Your task to perform on an android device: clear all cookies in the chrome app Image 0: 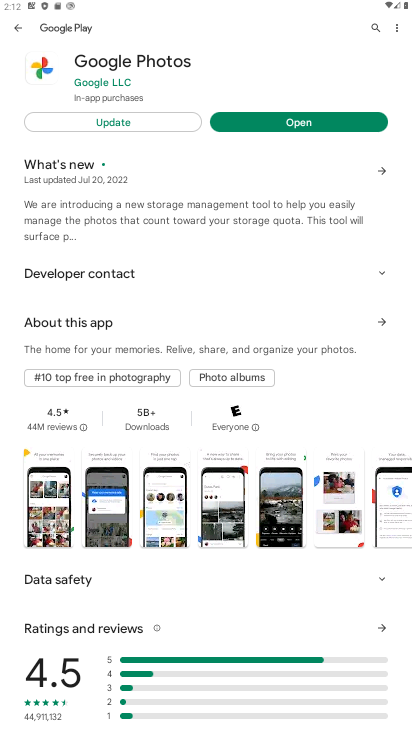
Step 0: click (408, 584)
Your task to perform on an android device: clear all cookies in the chrome app Image 1: 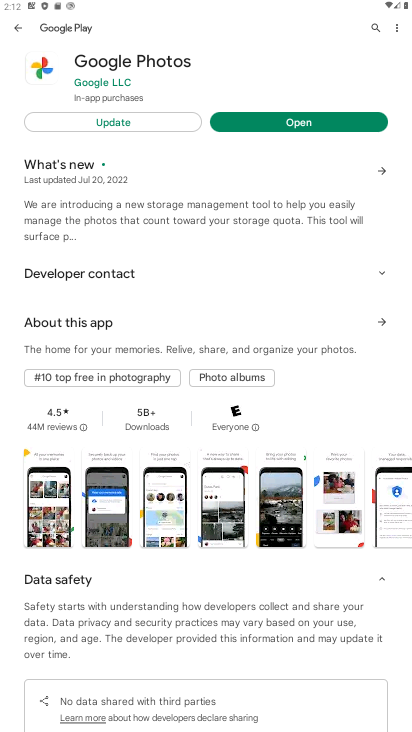
Step 1: drag from (195, 596) to (347, 709)
Your task to perform on an android device: clear all cookies in the chrome app Image 2: 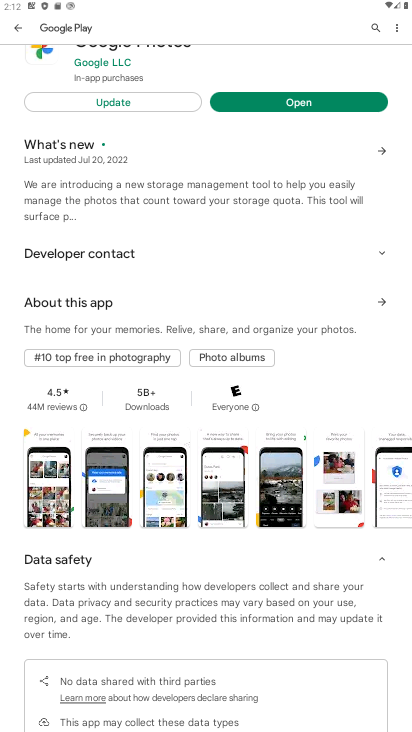
Step 2: press home button
Your task to perform on an android device: clear all cookies in the chrome app Image 3: 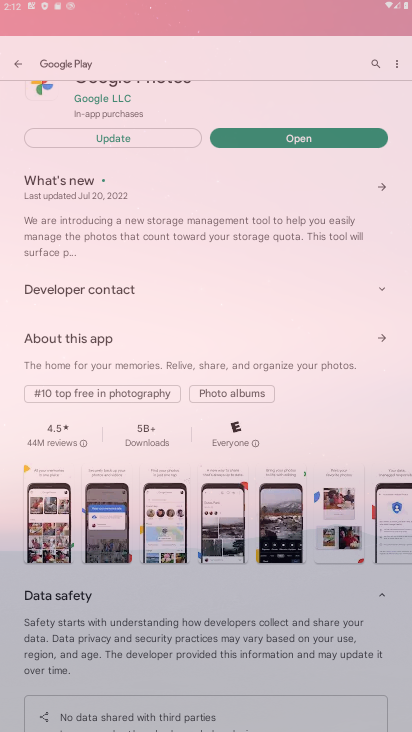
Step 3: drag from (173, 644) to (216, 133)
Your task to perform on an android device: clear all cookies in the chrome app Image 4: 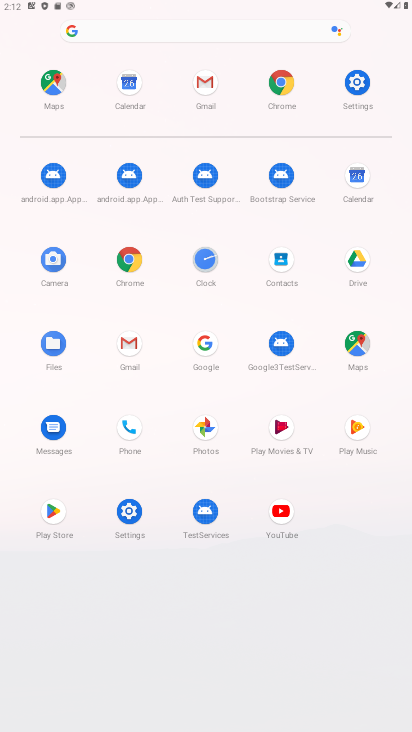
Step 4: click (131, 258)
Your task to perform on an android device: clear all cookies in the chrome app Image 5: 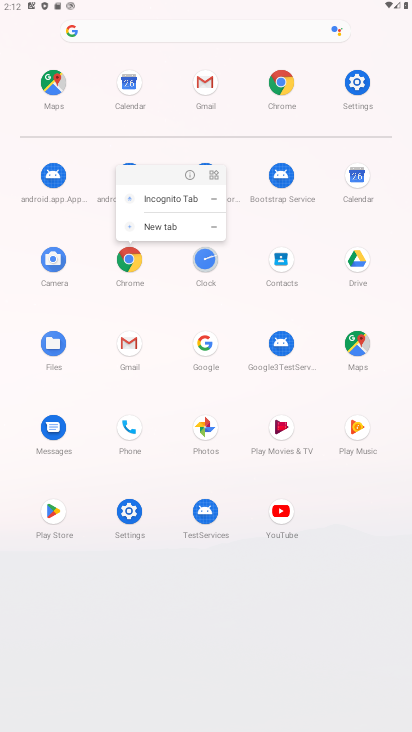
Step 5: click (188, 170)
Your task to perform on an android device: clear all cookies in the chrome app Image 6: 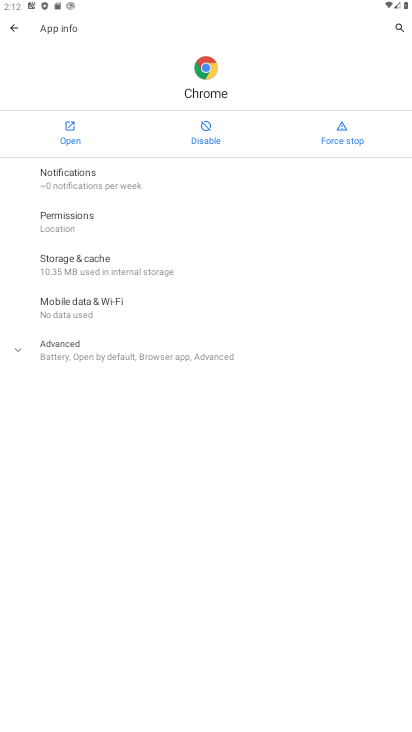
Step 6: click (64, 135)
Your task to perform on an android device: clear all cookies in the chrome app Image 7: 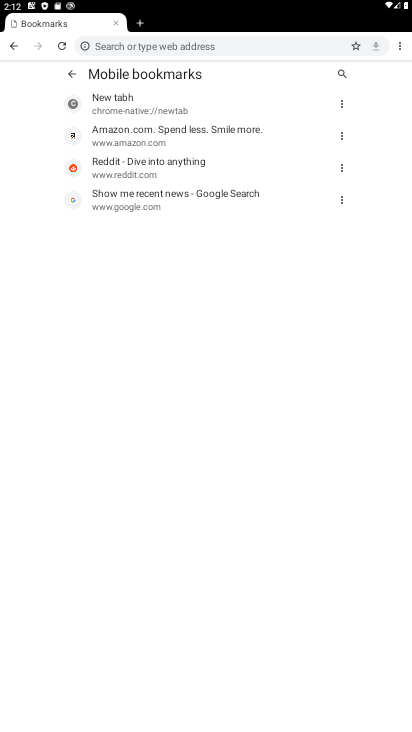
Step 7: drag from (394, 44) to (325, 137)
Your task to perform on an android device: clear all cookies in the chrome app Image 8: 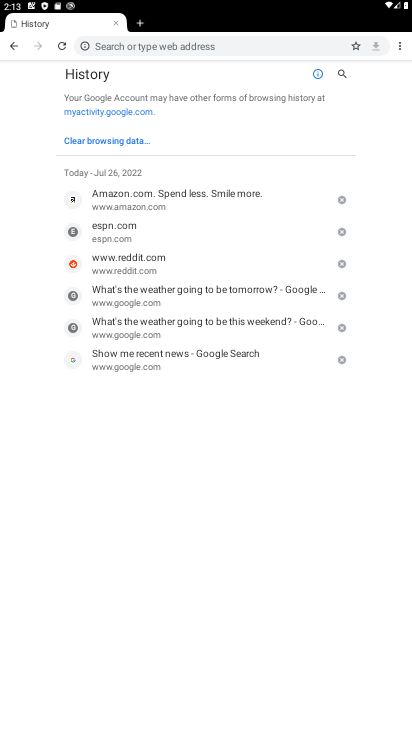
Step 8: drag from (204, 551) to (206, 298)
Your task to perform on an android device: clear all cookies in the chrome app Image 9: 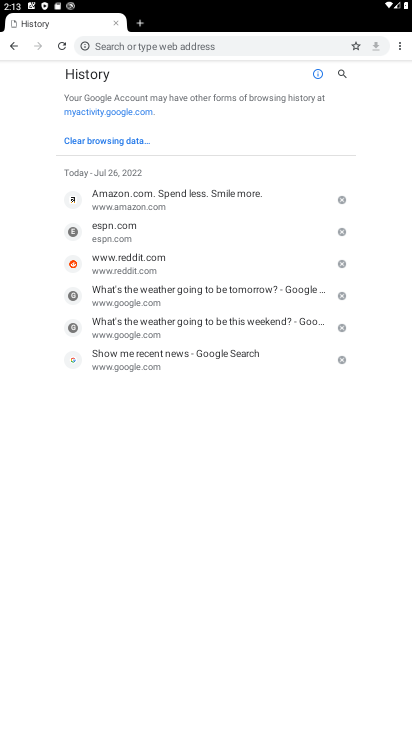
Step 9: click (95, 141)
Your task to perform on an android device: clear all cookies in the chrome app Image 10: 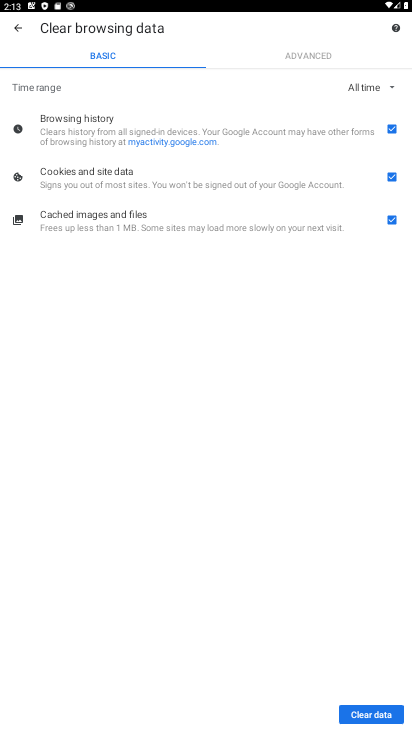
Step 10: drag from (231, 564) to (232, 213)
Your task to perform on an android device: clear all cookies in the chrome app Image 11: 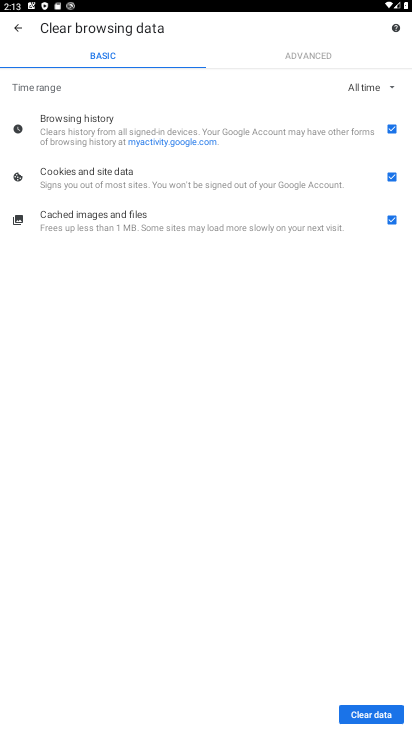
Step 11: click (390, 125)
Your task to perform on an android device: clear all cookies in the chrome app Image 12: 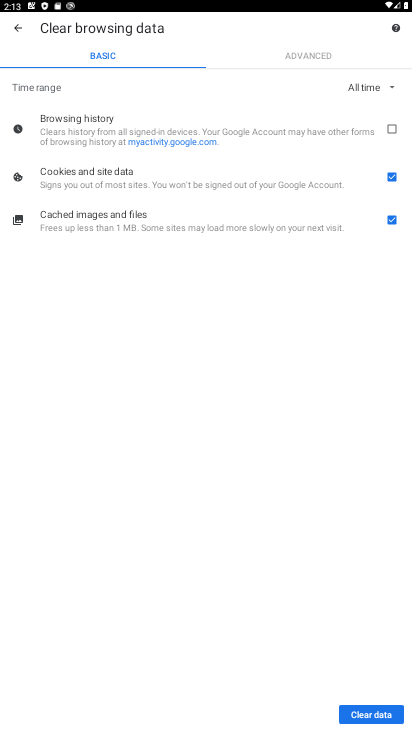
Step 12: click (385, 217)
Your task to perform on an android device: clear all cookies in the chrome app Image 13: 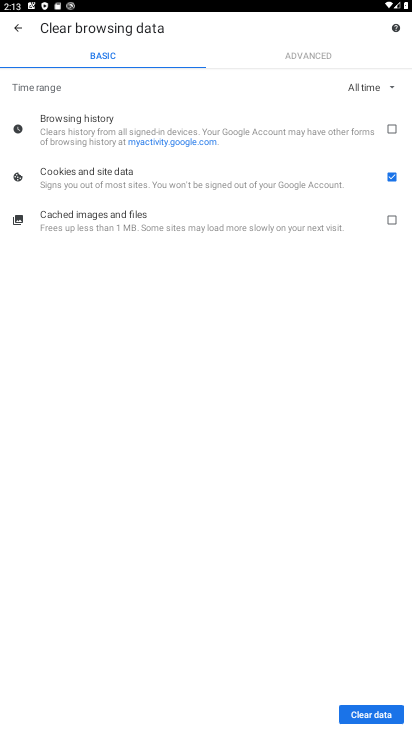
Step 13: click (362, 714)
Your task to perform on an android device: clear all cookies in the chrome app Image 14: 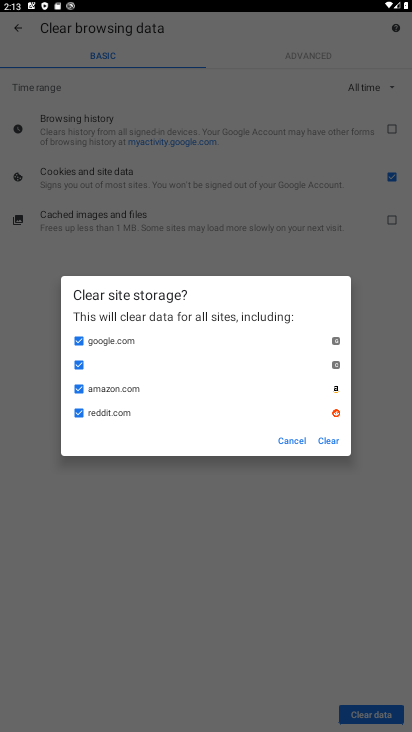
Step 14: click (328, 439)
Your task to perform on an android device: clear all cookies in the chrome app Image 15: 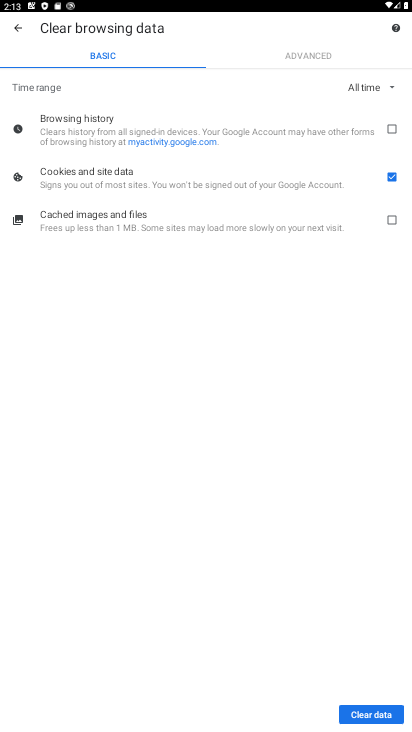
Step 15: task complete